Your task to perform on an android device: Open Google Chrome and open the bookmarks view Image 0: 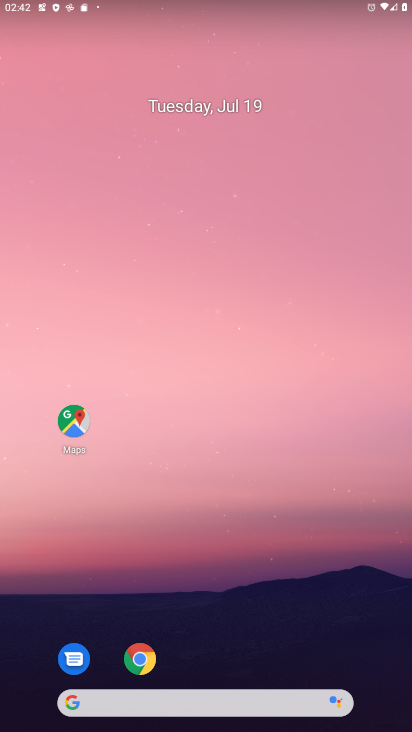
Step 0: press home button
Your task to perform on an android device: Open Google Chrome and open the bookmarks view Image 1: 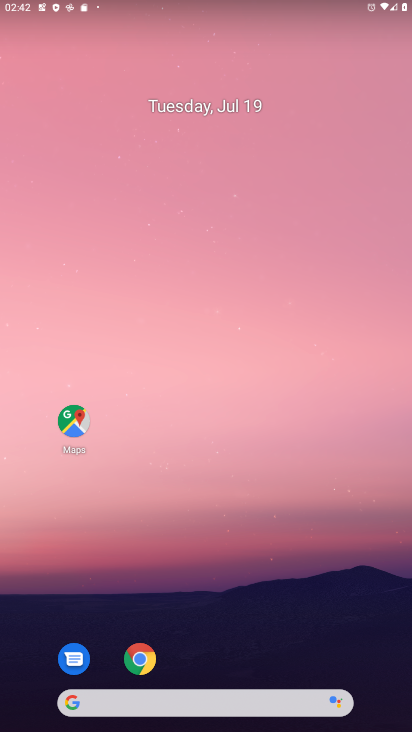
Step 1: click (145, 658)
Your task to perform on an android device: Open Google Chrome and open the bookmarks view Image 2: 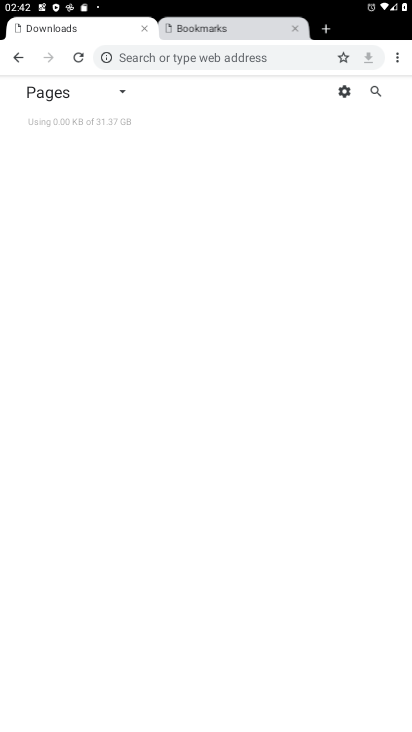
Step 2: task complete